Your task to perform on an android device: allow cookies in the chrome app Image 0: 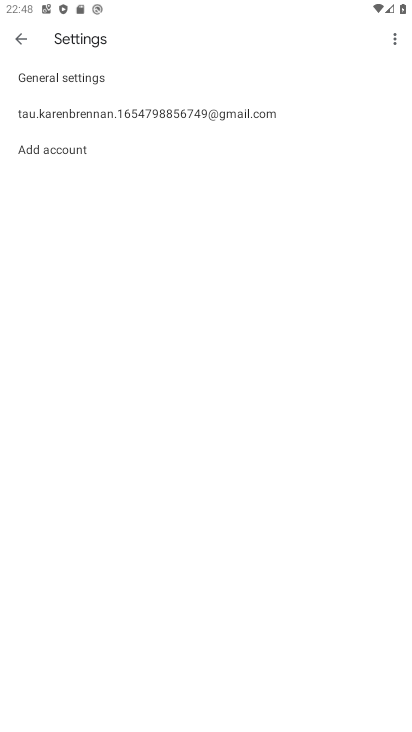
Step 0: press home button
Your task to perform on an android device: allow cookies in the chrome app Image 1: 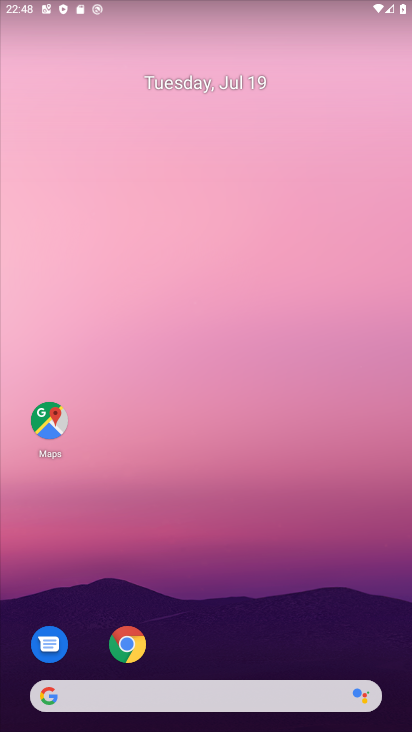
Step 1: click (128, 646)
Your task to perform on an android device: allow cookies in the chrome app Image 2: 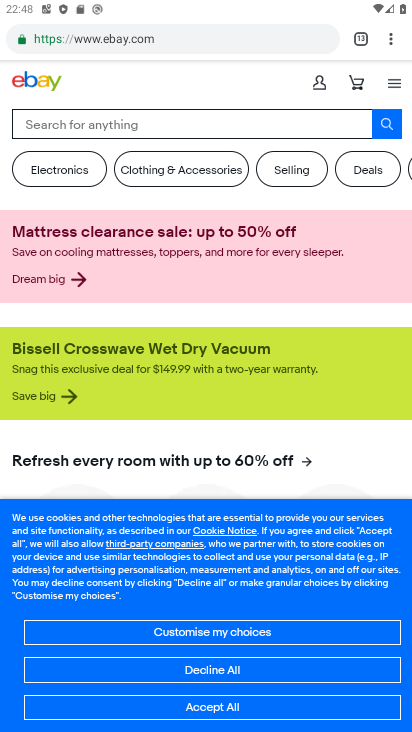
Step 2: click (390, 42)
Your task to perform on an android device: allow cookies in the chrome app Image 3: 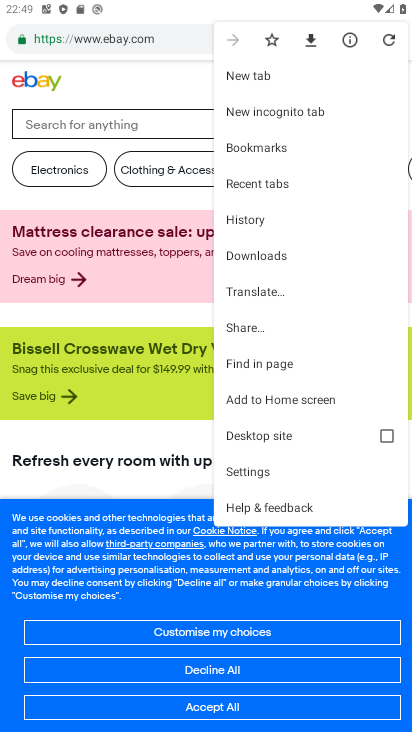
Step 3: click (234, 471)
Your task to perform on an android device: allow cookies in the chrome app Image 4: 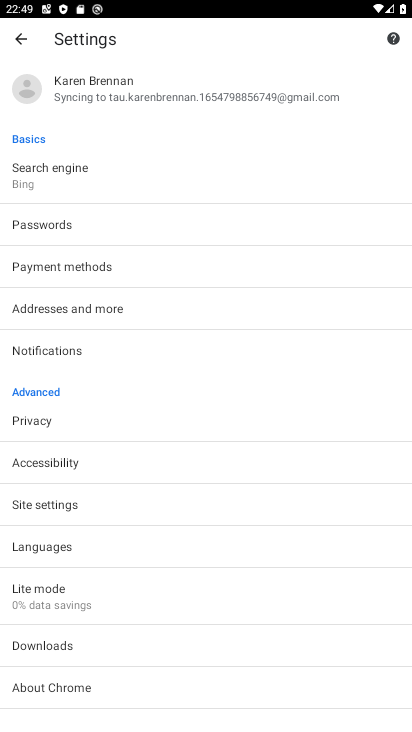
Step 4: click (36, 502)
Your task to perform on an android device: allow cookies in the chrome app Image 5: 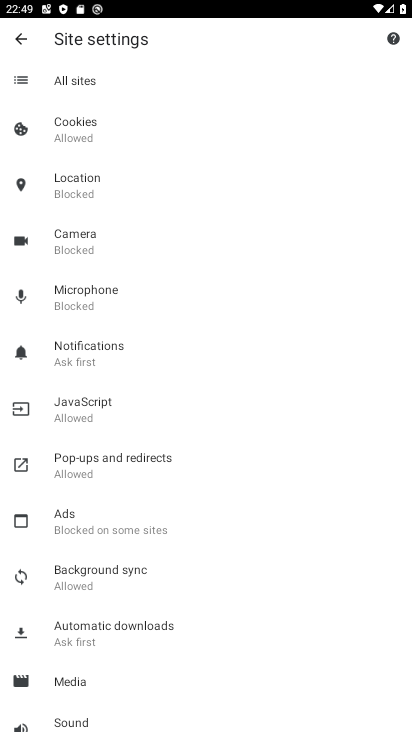
Step 5: click (67, 135)
Your task to perform on an android device: allow cookies in the chrome app Image 6: 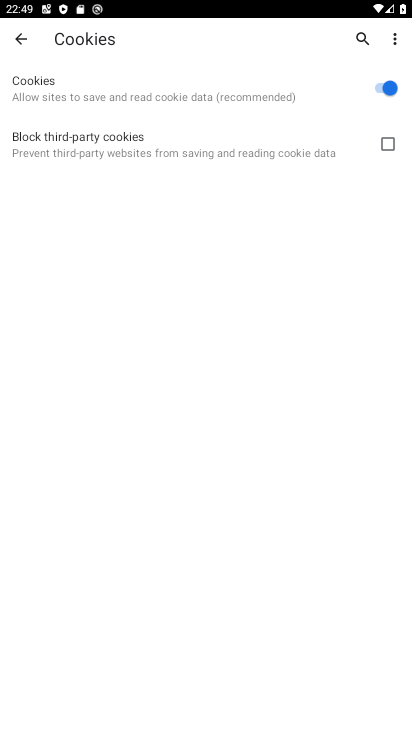
Step 6: task complete